Your task to perform on an android device: What's the weather going to be tomorrow? Image 0: 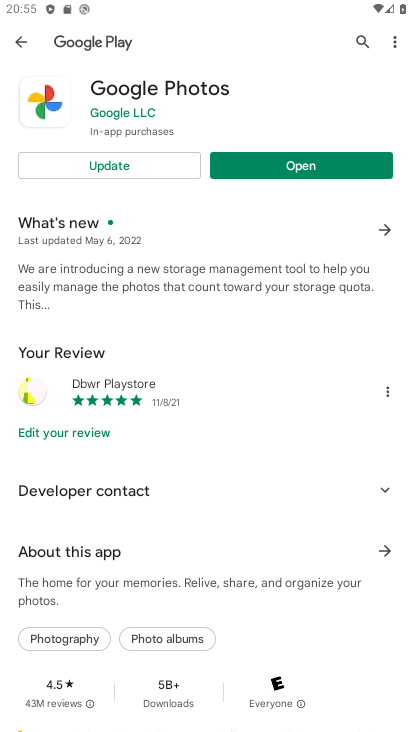
Step 0: press back button
Your task to perform on an android device: What's the weather going to be tomorrow? Image 1: 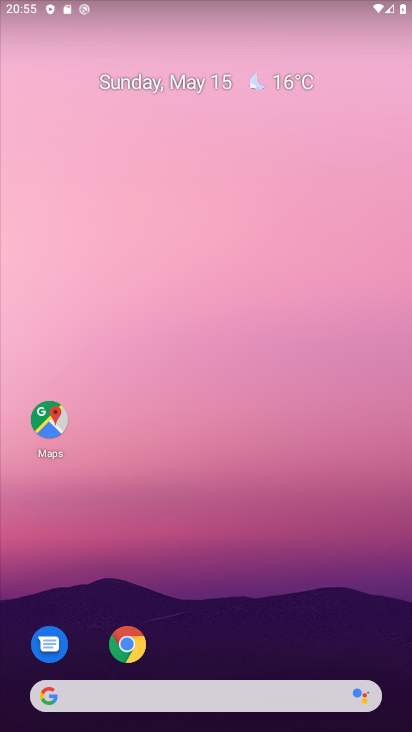
Step 1: click (275, 80)
Your task to perform on an android device: What's the weather going to be tomorrow? Image 2: 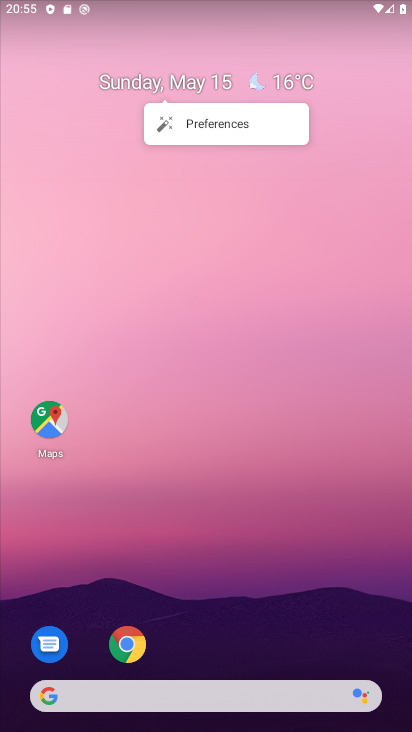
Step 2: click (257, 78)
Your task to perform on an android device: What's the weather going to be tomorrow? Image 3: 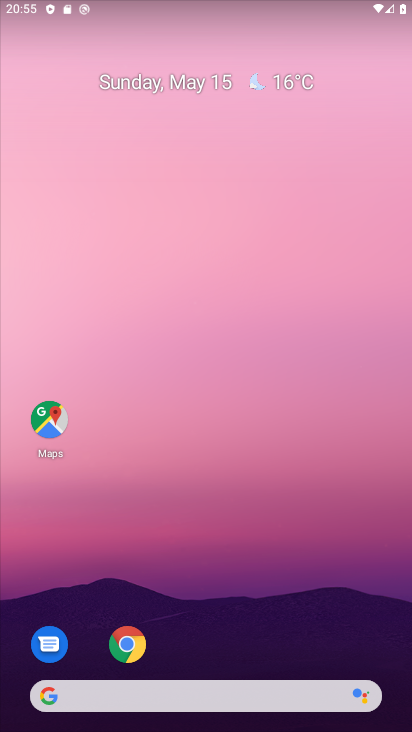
Step 3: click (274, 93)
Your task to perform on an android device: What's the weather going to be tomorrow? Image 4: 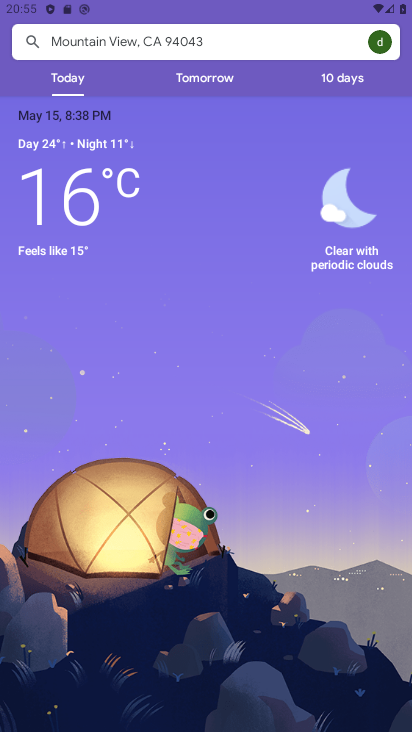
Step 4: click (225, 84)
Your task to perform on an android device: What's the weather going to be tomorrow? Image 5: 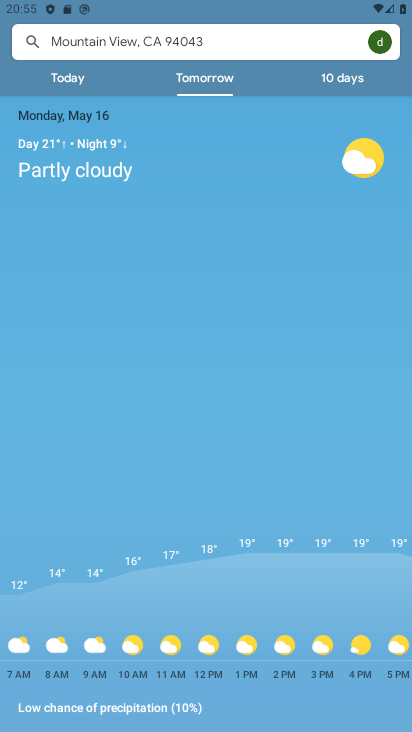
Step 5: task complete